Your task to perform on an android device: see sites visited before in the chrome app Image 0: 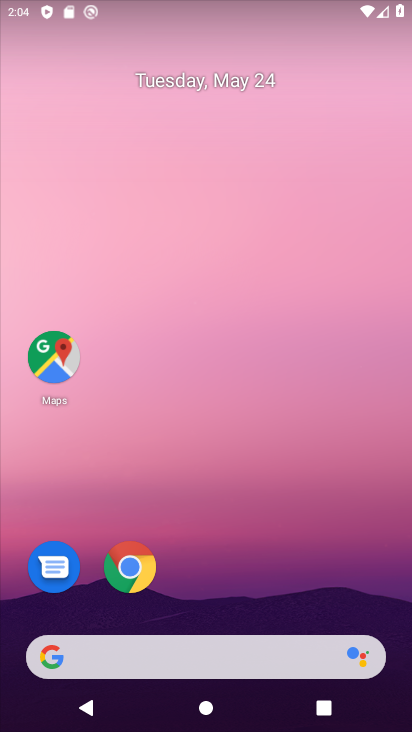
Step 0: click (136, 572)
Your task to perform on an android device: see sites visited before in the chrome app Image 1: 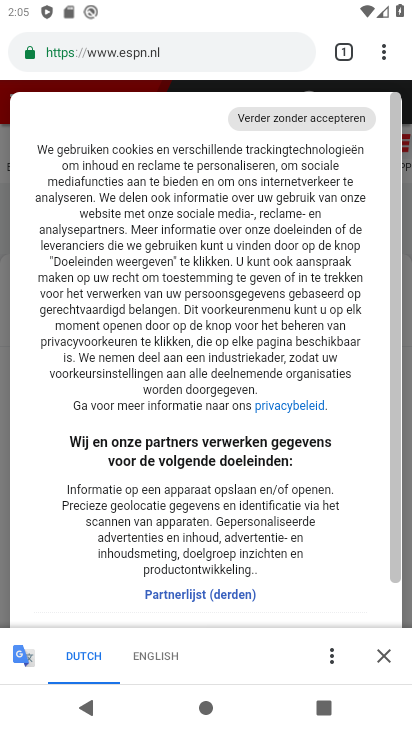
Step 1: task complete